Your task to perform on an android device: turn on javascript in the chrome app Image 0: 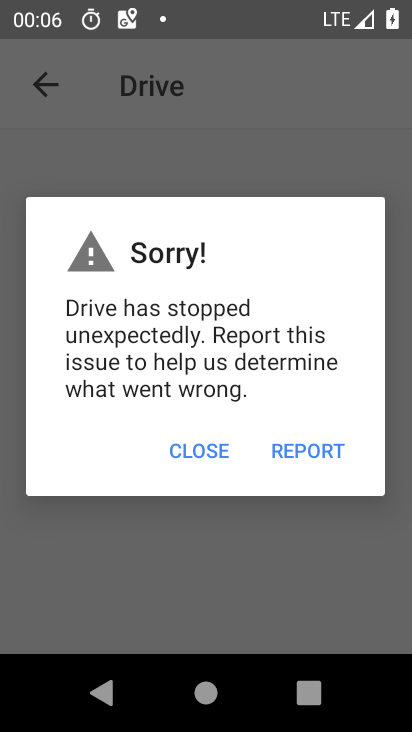
Step 0: press home button
Your task to perform on an android device: turn on javascript in the chrome app Image 1: 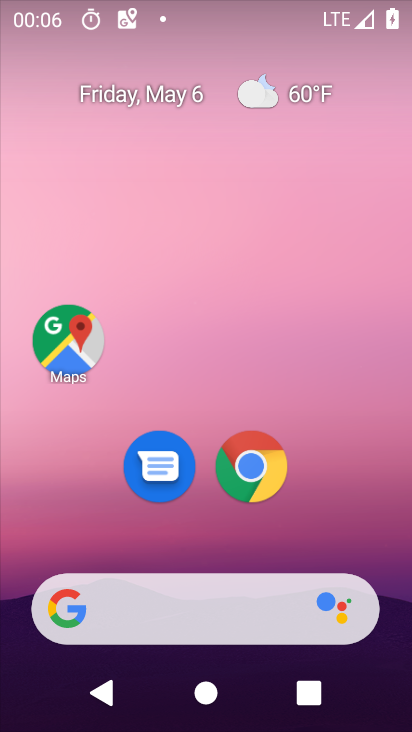
Step 1: click (252, 479)
Your task to perform on an android device: turn on javascript in the chrome app Image 2: 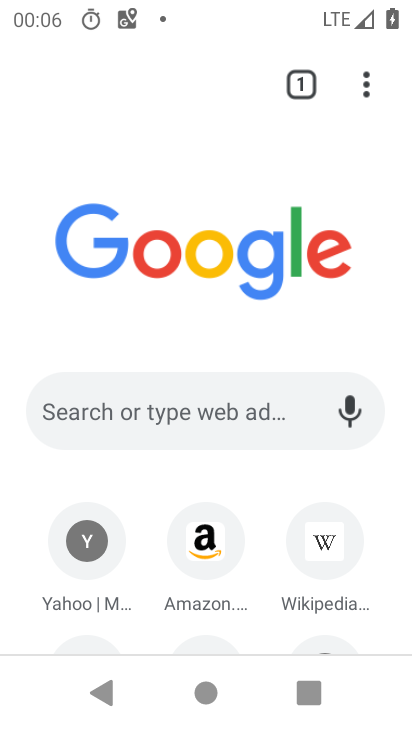
Step 2: click (364, 85)
Your task to perform on an android device: turn on javascript in the chrome app Image 3: 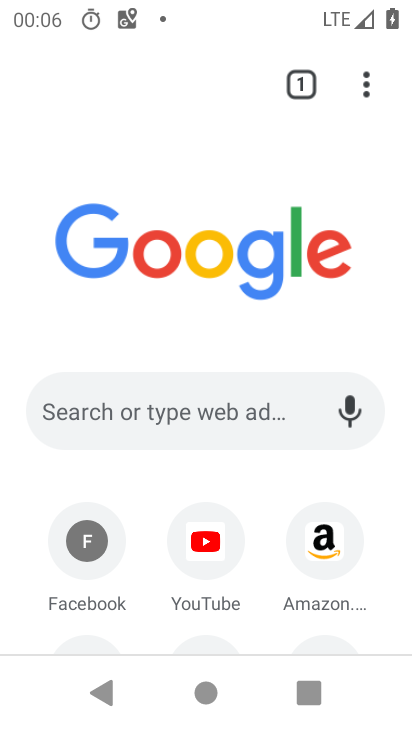
Step 3: click (366, 82)
Your task to perform on an android device: turn on javascript in the chrome app Image 4: 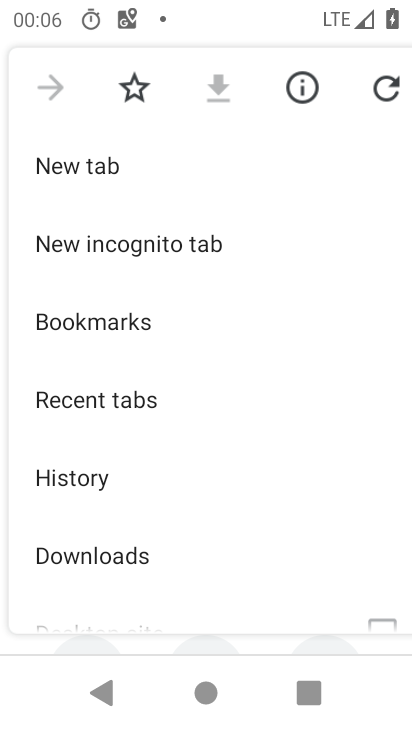
Step 4: drag from (104, 505) to (119, 215)
Your task to perform on an android device: turn on javascript in the chrome app Image 5: 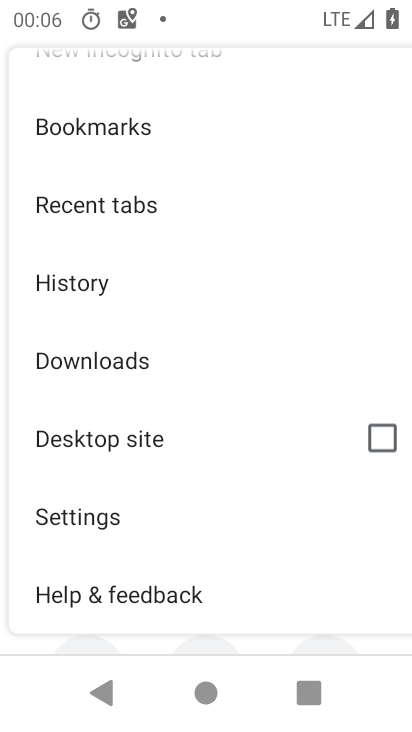
Step 5: drag from (114, 591) to (136, 271)
Your task to perform on an android device: turn on javascript in the chrome app Image 6: 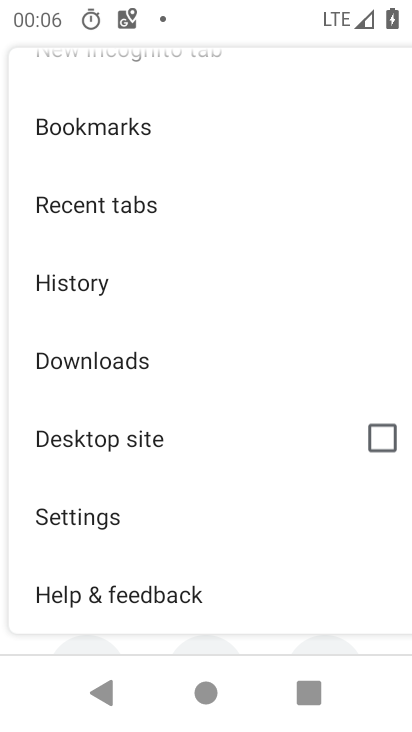
Step 6: click (99, 515)
Your task to perform on an android device: turn on javascript in the chrome app Image 7: 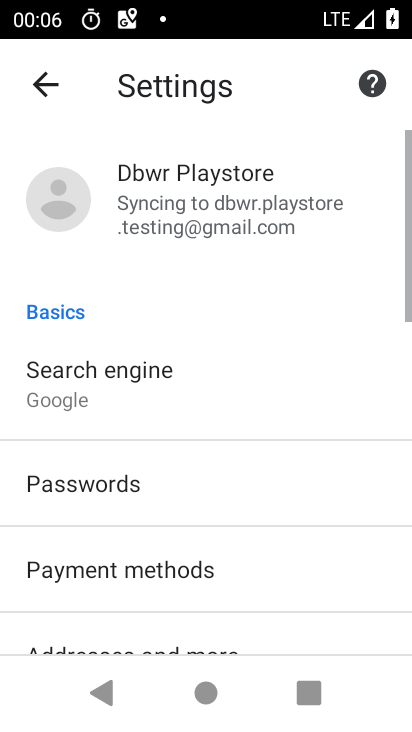
Step 7: drag from (157, 651) to (187, 347)
Your task to perform on an android device: turn on javascript in the chrome app Image 8: 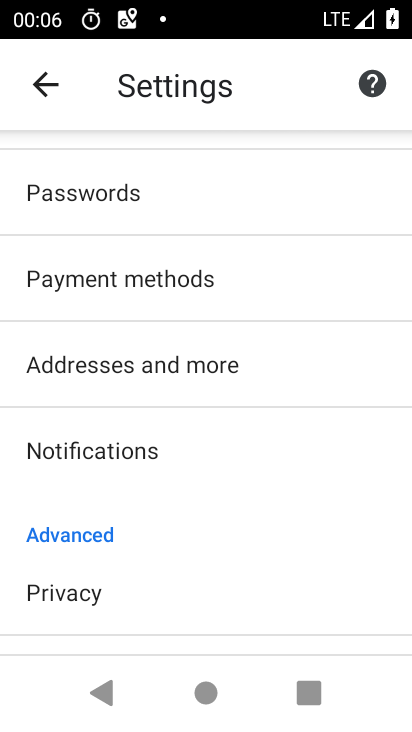
Step 8: drag from (136, 609) to (131, 255)
Your task to perform on an android device: turn on javascript in the chrome app Image 9: 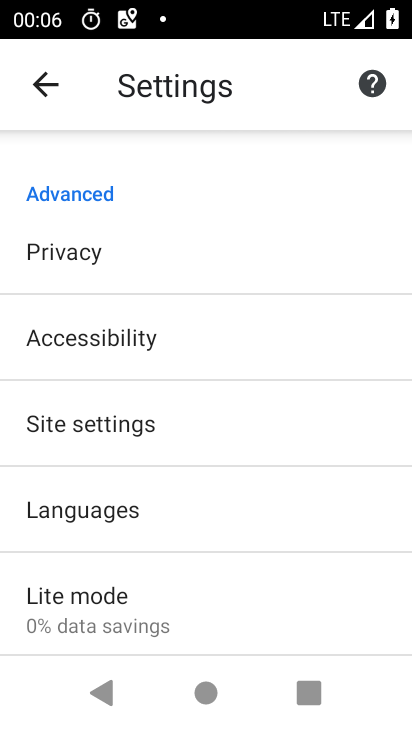
Step 9: drag from (101, 631) to (137, 318)
Your task to perform on an android device: turn on javascript in the chrome app Image 10: 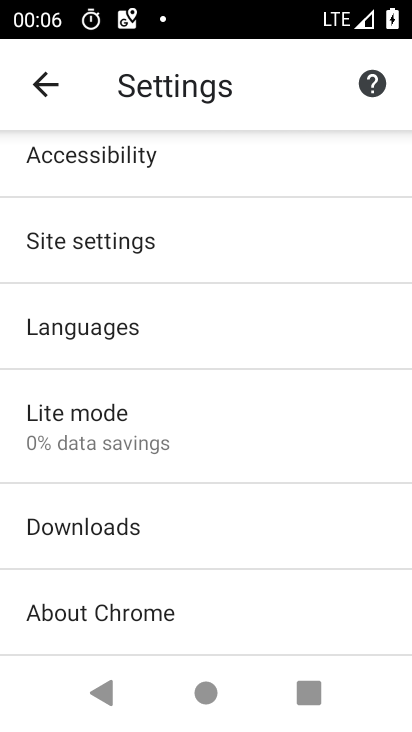
Step 10: click (82, 243)
Your task to perform on an android device: turn on javascript in the chrome app Image 11: 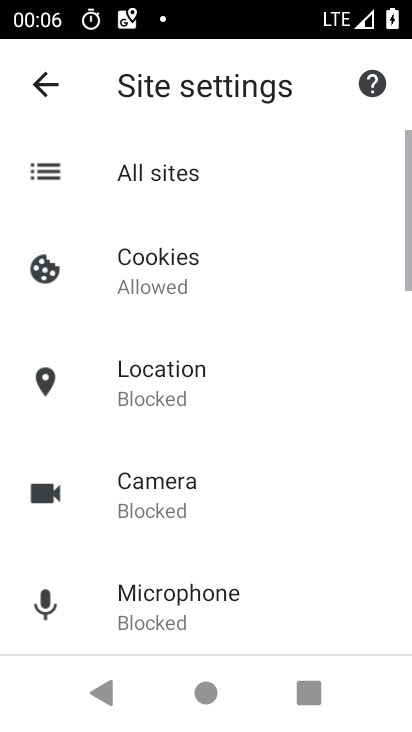
Step 11: drag from (139, 626) to (144, 272)
Your task to perform on an android device: turn on javascript in the chrome app Image 12: 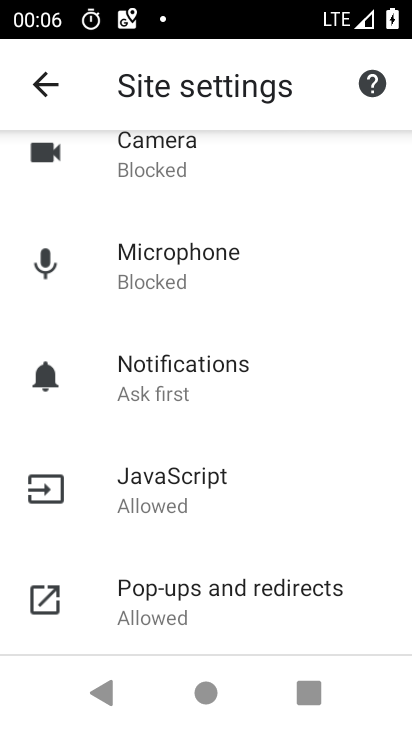
Step 12: click (158, 497)
Your task to perform on an android device: turn on javascript in the chrome app Image 13: 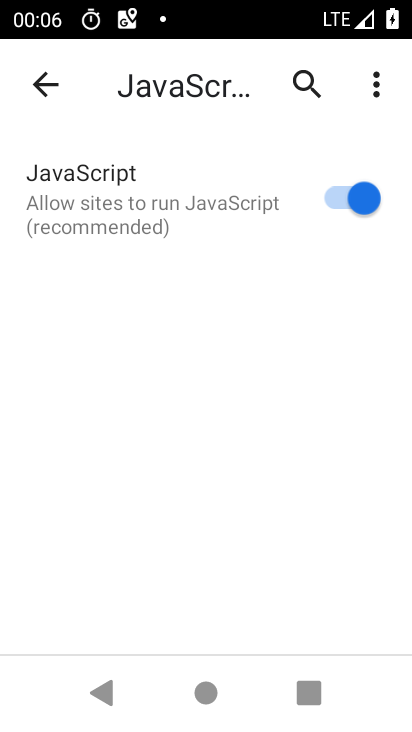
Step 13: task complete